Your task to perform on an android device: toggle improve location accuracy Image 0: 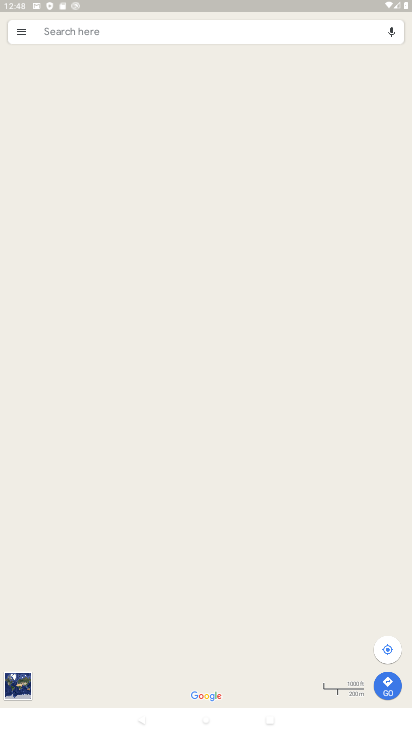
Step 0: press home button
Your task to perform on an android device: toggle improve location accuracy Image 1: 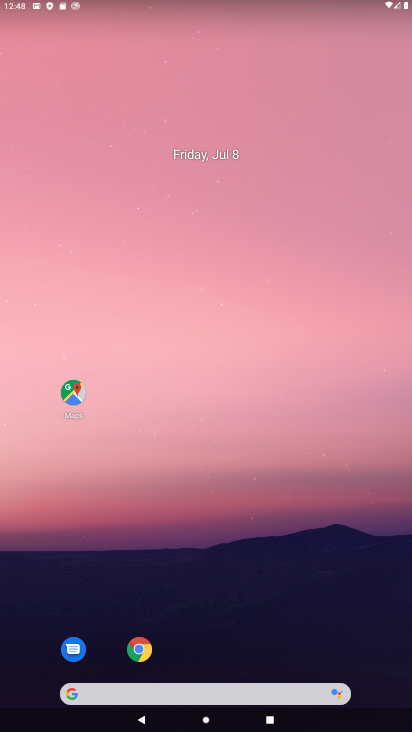
Step 1: drag from (253, 490) to (253, 209)
Your task to perform on an android device: toggle improve location accuracy Image 2: 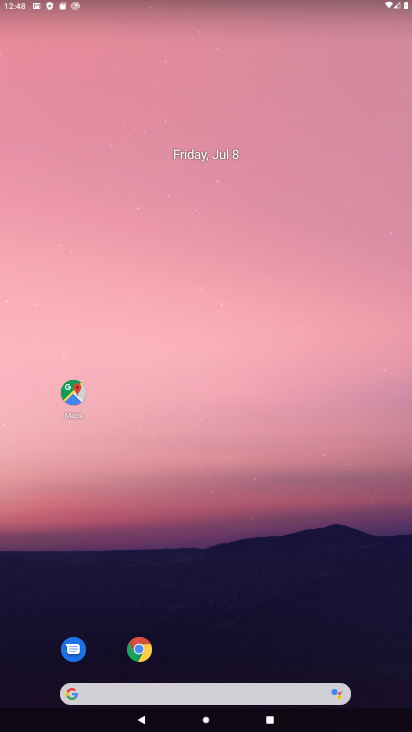
Step 2: drag from (263, 565) to (267, 44)
Your task to perform on an android device: toggle improve location accuracy Image 3: 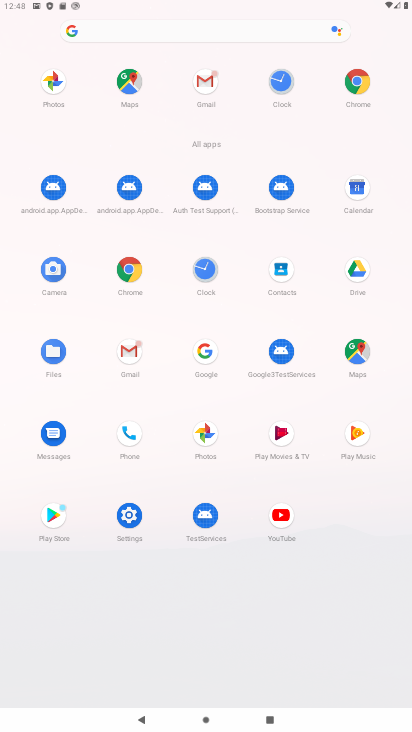
Step 3: click (133, 510)
Your task to perform on an android device: toggle improve location accuracy Image 4: 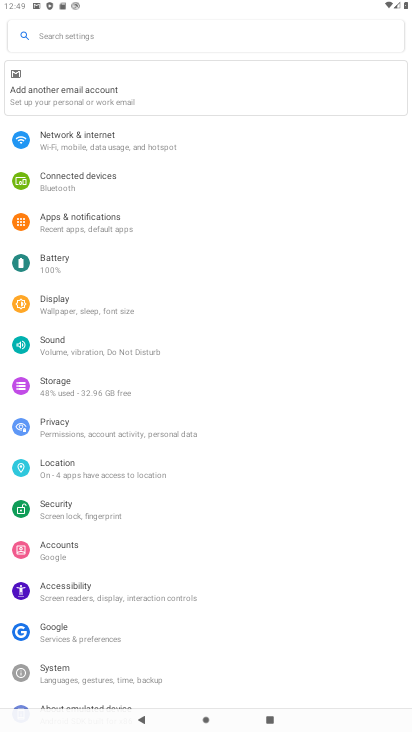
Step 4: click (65, 465)
Your task to perform on an android device: toggle improve location accuracy Image 5: 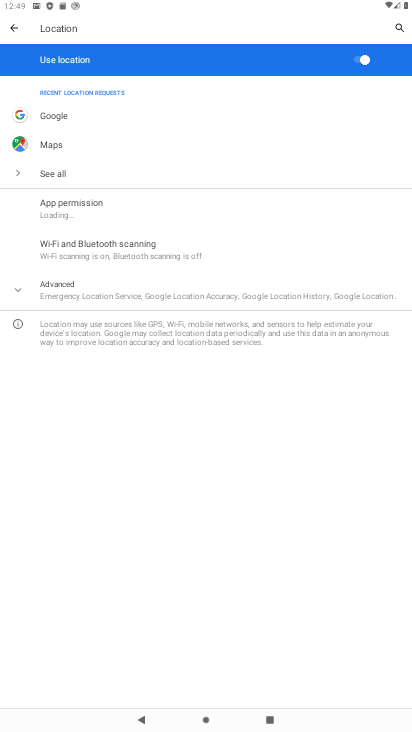
Step 5: click (67, 288)
Your task to perform on an android device: toggle improve location accuracy Image 6: 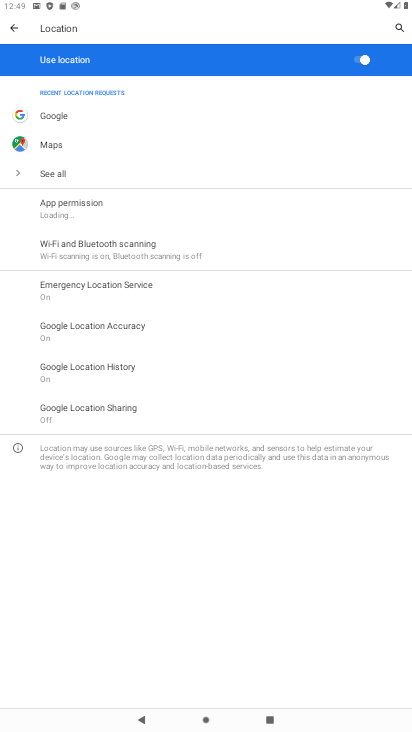
Step 6: click (94, 327)
Your task to perform on an android device: toggle improve location accuracy Image 7: 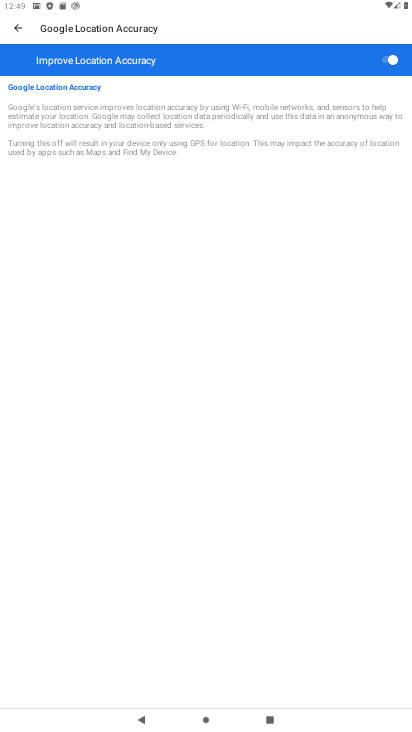
Step 7: click (381, 55)
Your task to perform on an android device: toggle improve location accuracy Image 8: 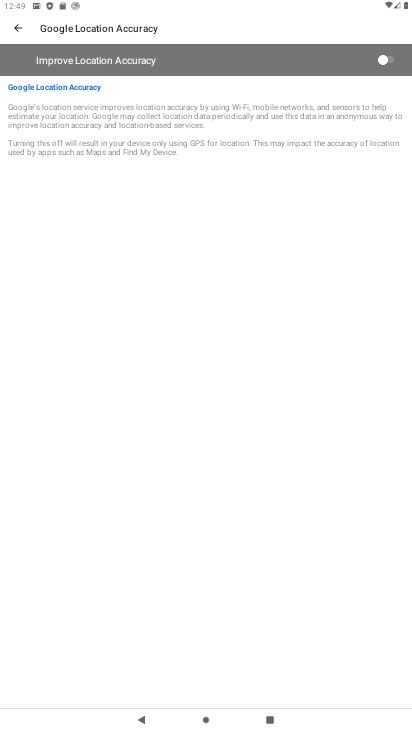
Step 8: task complete